Your task to perform on an android device: check android version Image 0: 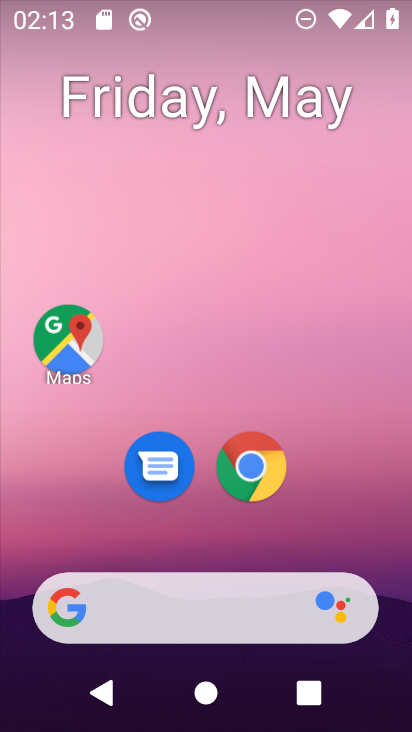
Step 0: drag from (360, 564) to (220, 95)
Your task to perform on an android device: check android version Image 1: 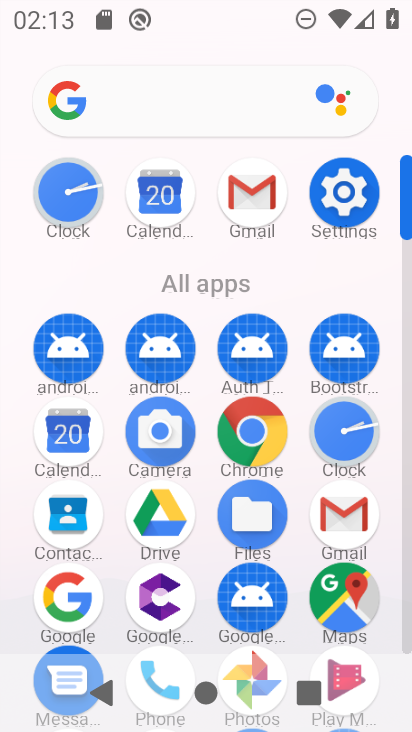
Step 1: click (341, 199)
Your task to perform on an android device: check android version Image 2: 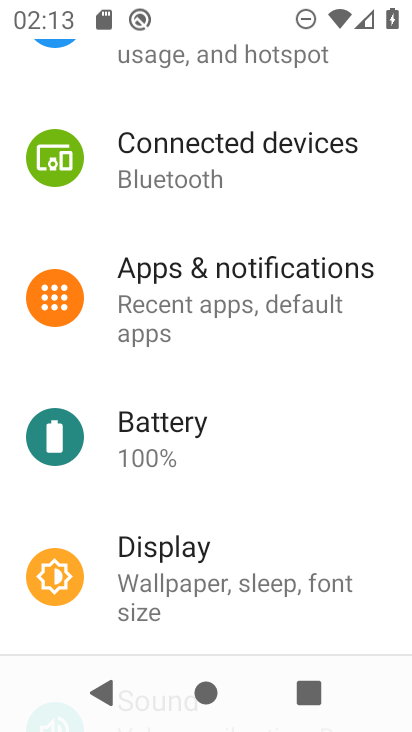
Step 2: drag from (284, 477) to (234, 34)
Your task to perform on an android device: check android version Image 3: 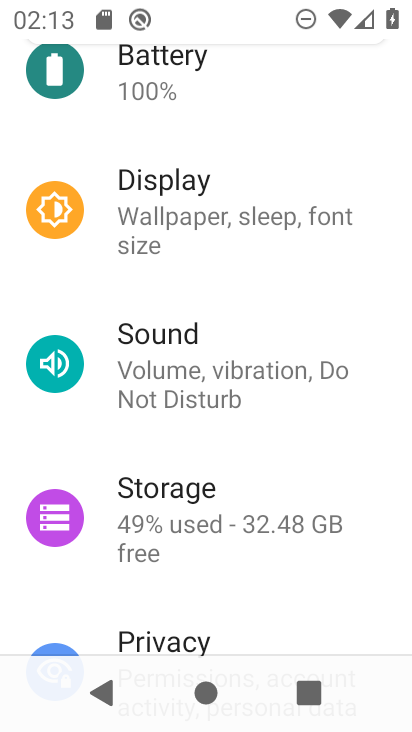
Step 3: drag from (262, 528) to (272, 162)
Your task to perform on an android device: check android version Image 4: 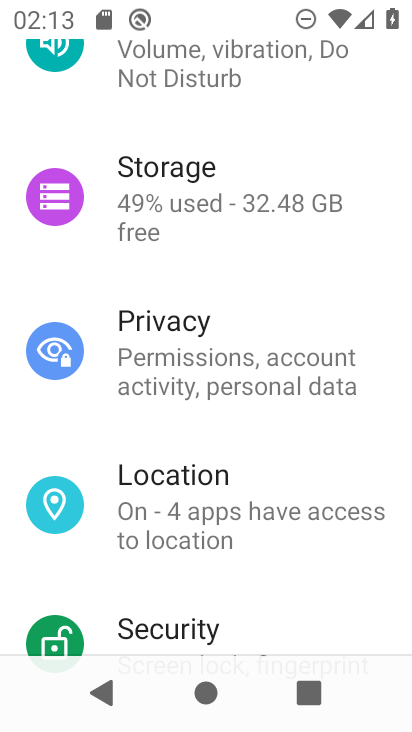
Step 4: drag from (292, 643) to (248, 174)
Your task to perform on an android device: check android version Image 5: 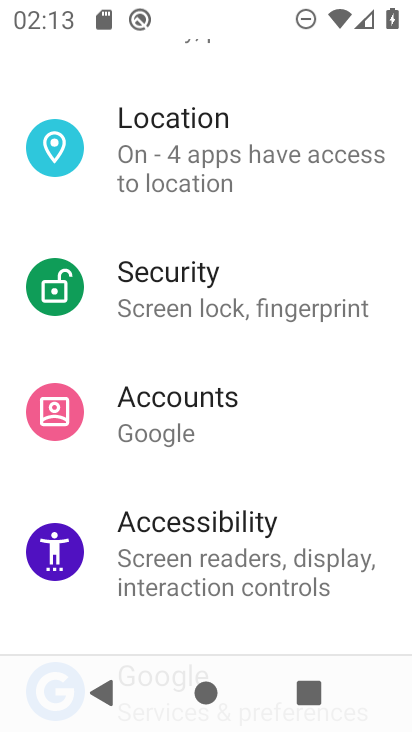
Step 5: drag from (248, 565) to (224, 35)
Your task to perform on an android device: check android version Image 6: 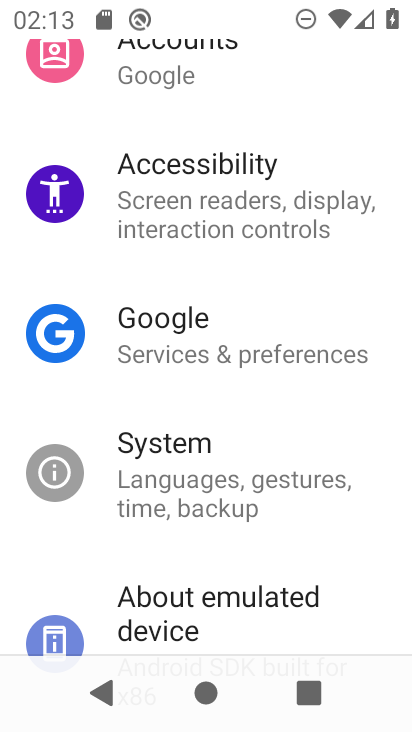
Step 6: click (246, 604)
Your task to perform on an android device: check android version Image 7: 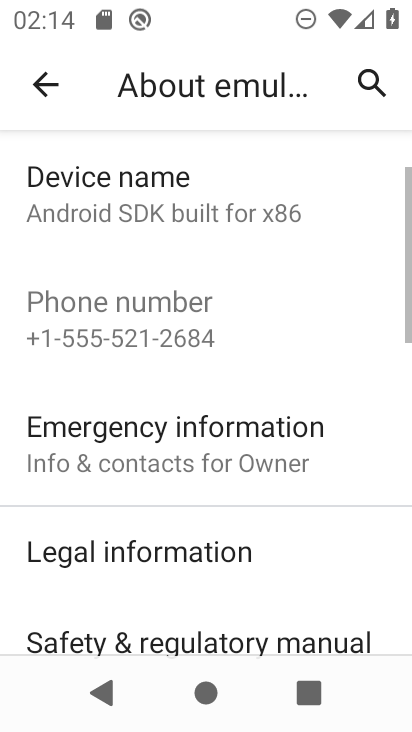
Step 7: drag from (268, 431) to (198, 134)
Your task to perform on an android device: check android version Image 8: 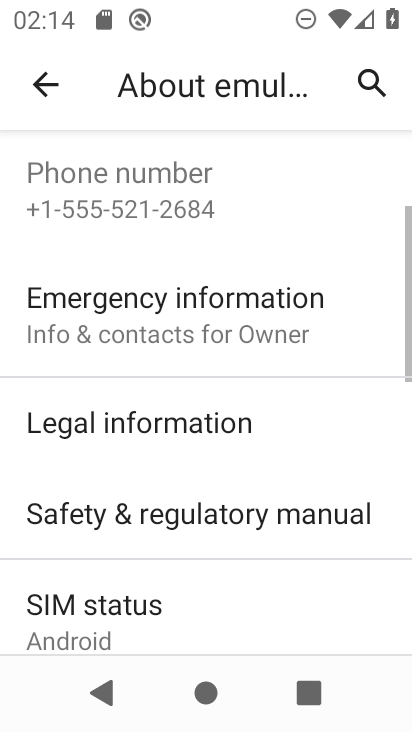
Step 8: drag from (153, 578) to (188, 95)
Your task to perform on an android device: check android version Image 9: 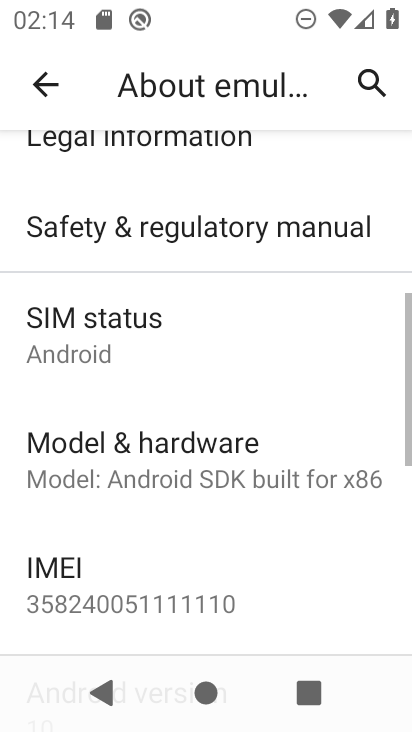
Step 9: drag from (239, 560) to (322, 166)
Your task to perform on an android device: check android version Image 10: 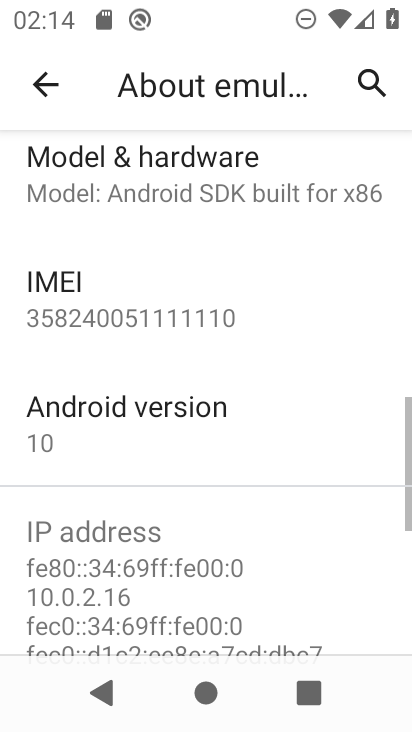
Step 10: click (281, 409)
Your task to perform on an android device: check android version Image 11: 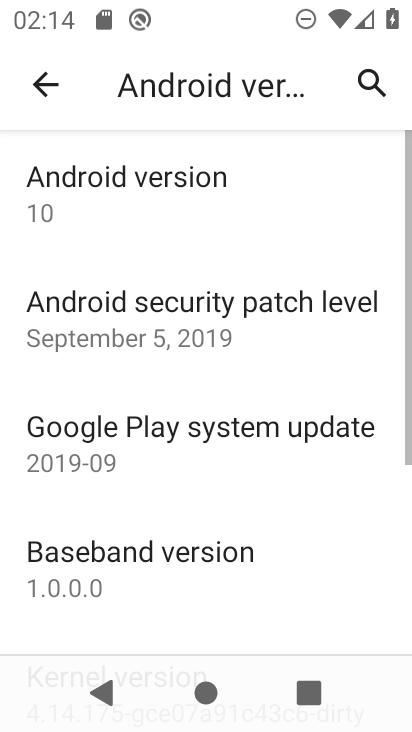
Step 11: task complete